Your task to perform on an android device: add a label to a message in the gmail app Image 0: 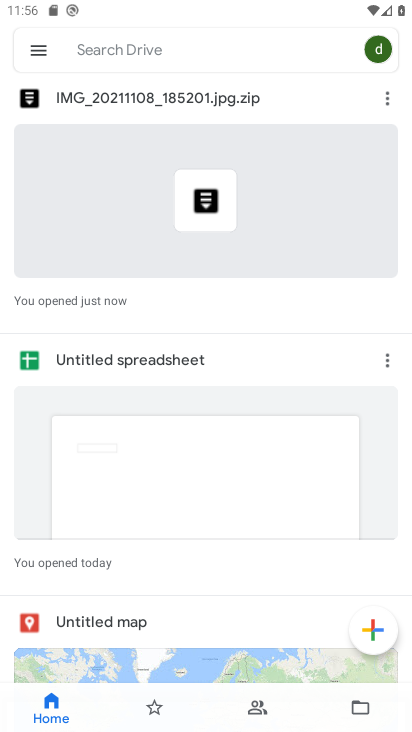
Step 0: press back button
Your task to perform on an android device: add a label to a message in the gmail app Image 1: 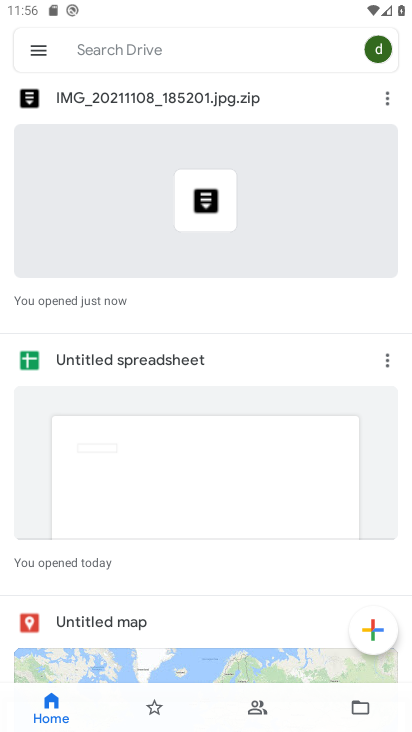
Step 1: press back button
Your task to perform on an android device: add a label to a message in the gmail app Image 2: 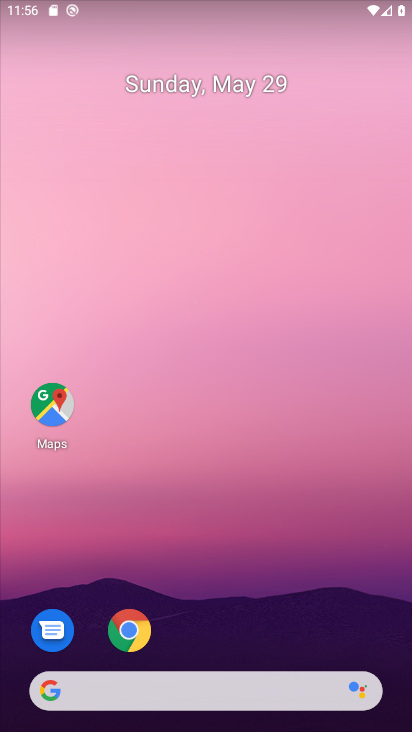
Step 2: drag from (197, 604) to (57, 15)
Your task to perform on an android device: add a label to a message in the gmail app Image 3: 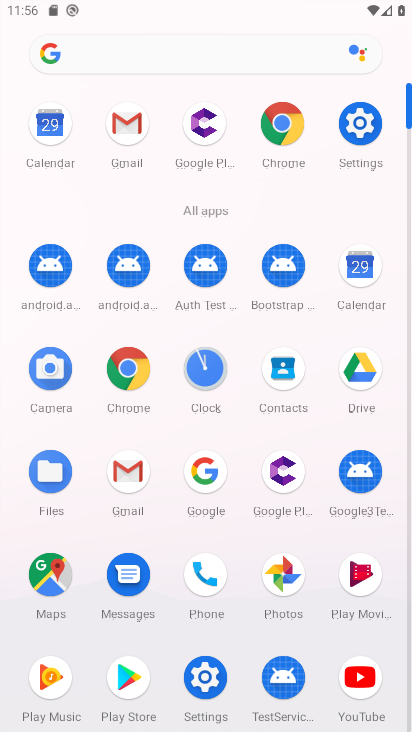
Step 3: click (121, 473)
Your task to perform on an android device: add a label to a message in the gmail app Image 4: 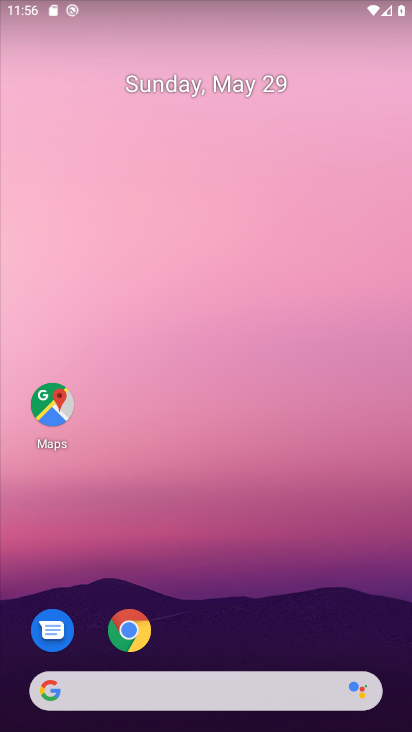
Step 4: drag from (161, 360) to (140, 58)
Your task to perform on an android device: add a label to a message in the gmail app Image 5: 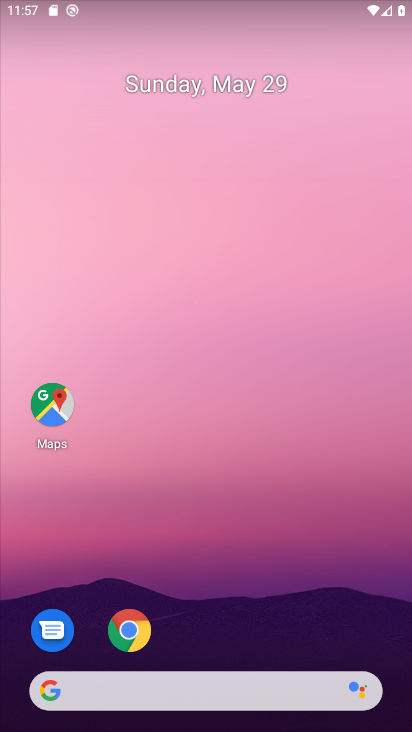
Step 5: drag from (211, 291) to (217, 45)
Your task to perform on an android device: add a label to a message in the gmail app Image 6: 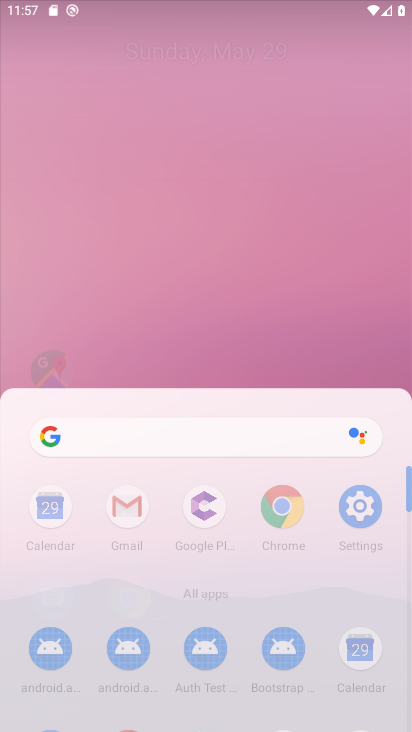
Step 6: drag from (226, 347) to (199, 104)
Your task to perform on an android device: add a label to a message in the gmail app Image 7: 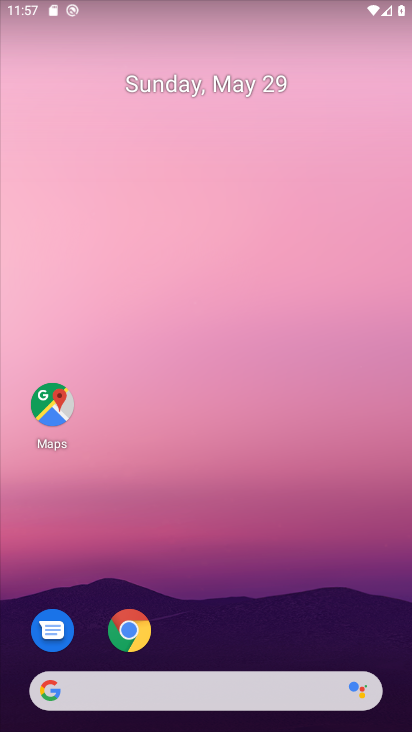
Step 7: drag from (212, 649) to (118, 79)
Your task to perform on an android device: add a label to a message in the gmail app Image 8: 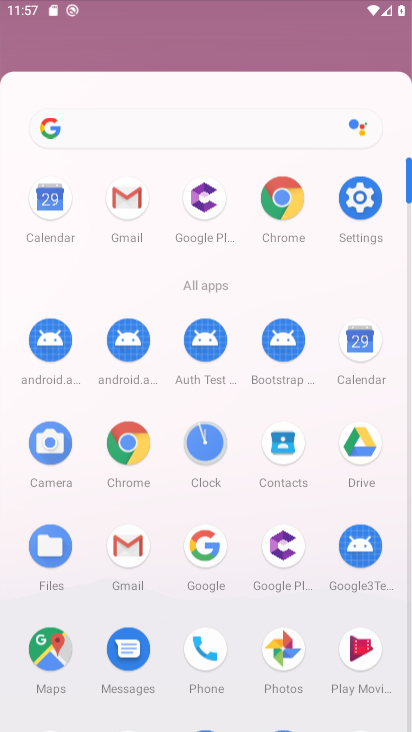
Step 8: drag from (209, 533) to (147, 4)
Your task to perform on an android device: add a label to a message in the gmail app Image 9: 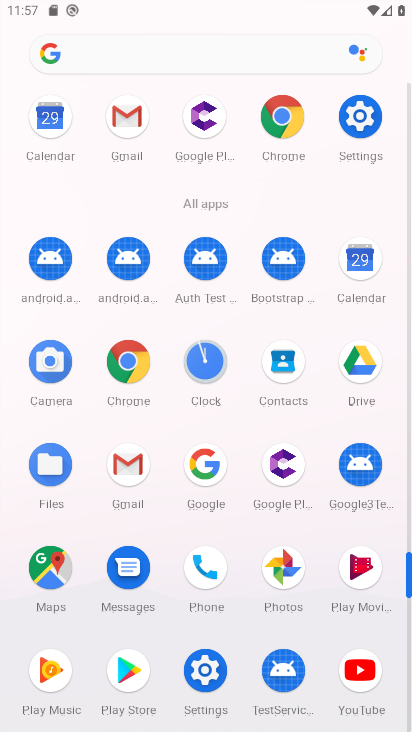
Step 9: click (124, 464)
Your task to perform on an android device: add a label to a message in the gmail app Image 10: 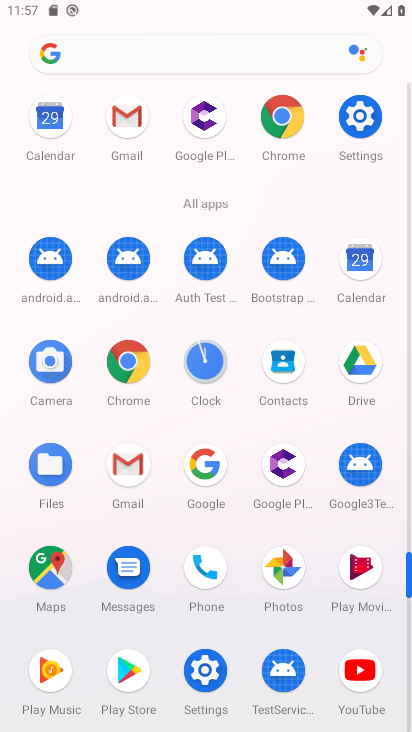
Step 10: click (124, 464)
Your task to perform on an android device: add a label to a message in the gmail app Image 11: 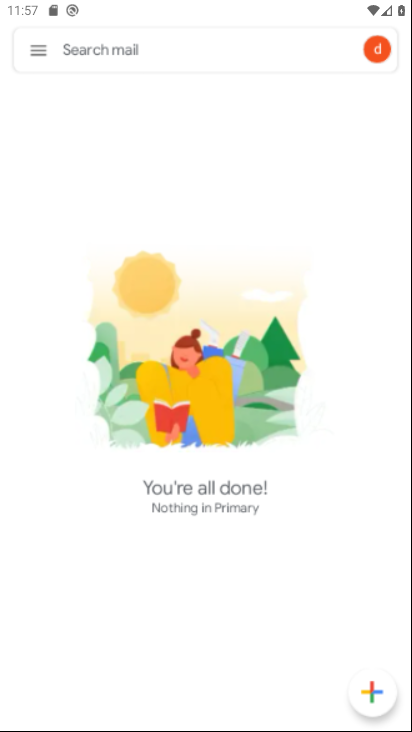
Step 11: click (124, 464)
Your task to perform on an android device: add a label to a message in the gmail app Image 12: 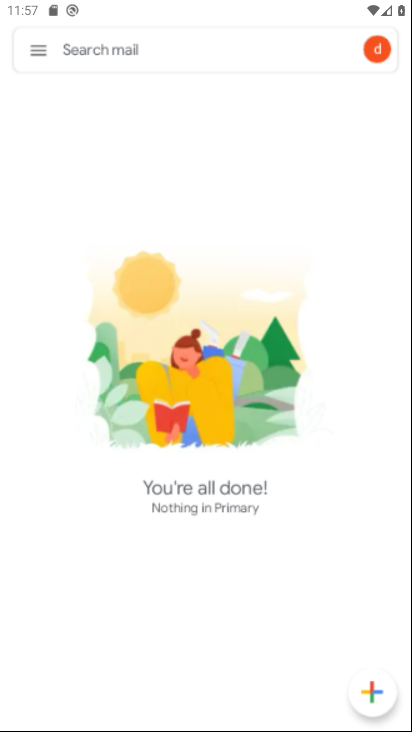
Step 12: click (124, 464)
Your task to perform on an android device: add a label to a message in the gmail app Image 13: 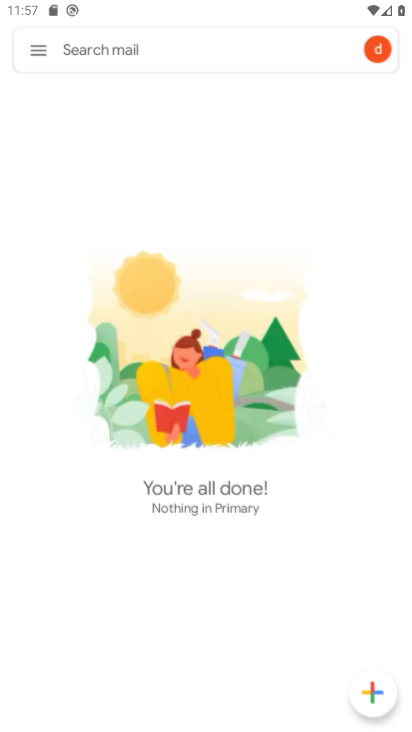
Step 13: click (124, 464)
Your task to perform on an android device: add a label to a message in the gmail app Image 14: 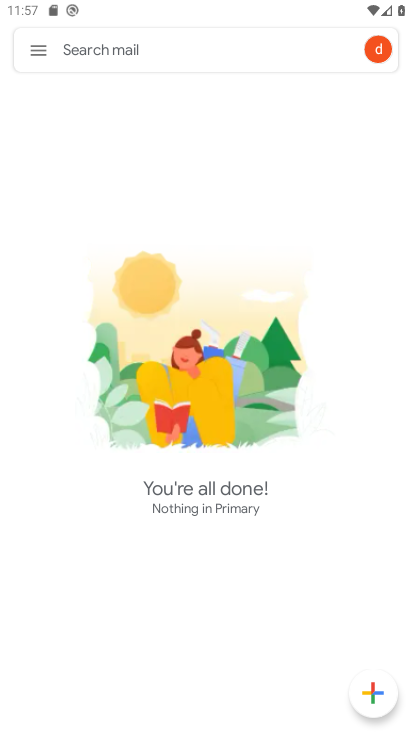
Step 14: click (37, 50)
Your task to perform on an android device: add a label to a message in the gmail app Image 15: 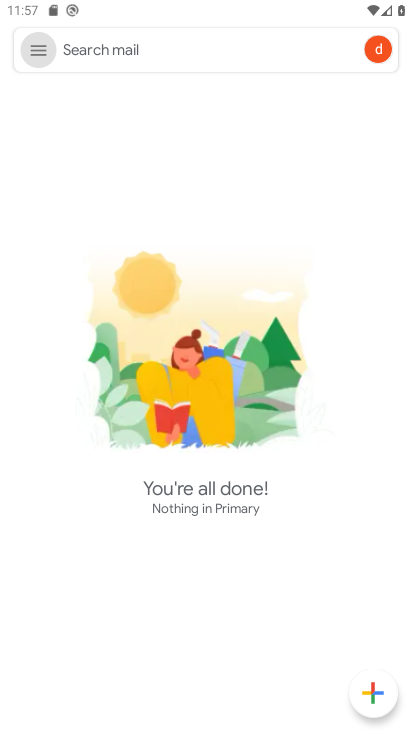
Step 15: click (37, 50)
Your task to perform on an android device: add a label to a message in the gmail app Image 16: 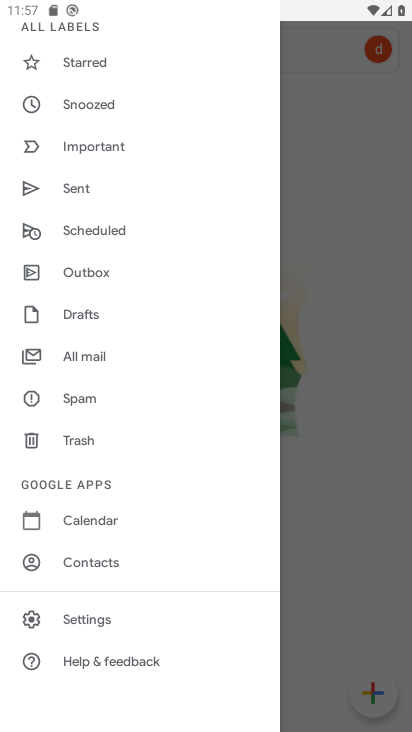
Step 16: click (79, 358)
Your task to perform on an android device: add a label to a message in the gmail app Image 17: 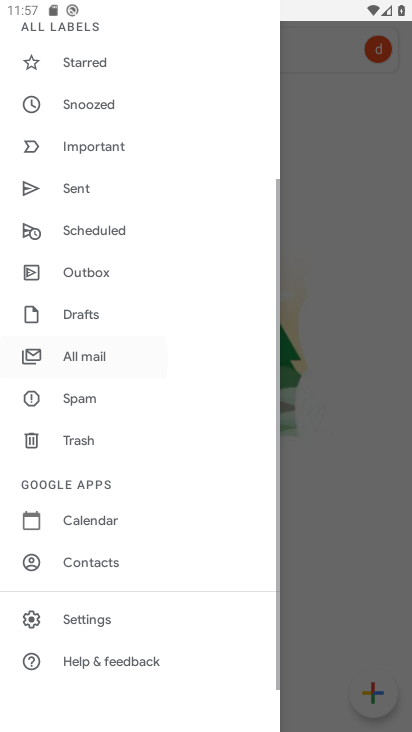
Step 17: click (79, 358)
Your task to perform on an android device: add a label to a message in the gmail app Image 18: 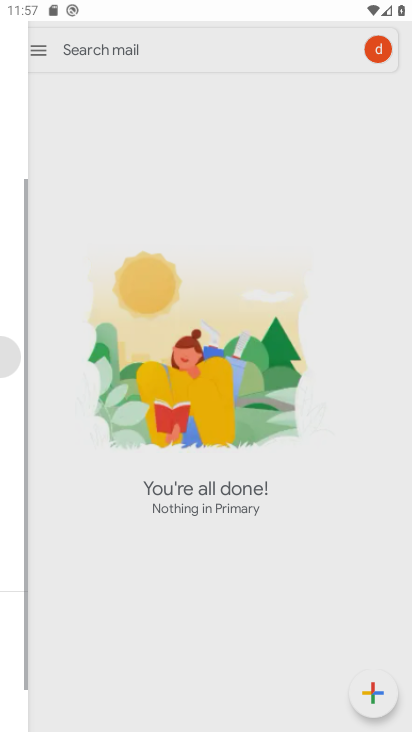
Step 18: click (79, 358)
Your task to perform on an android device: add a label to a message in the gmail app Image 19: 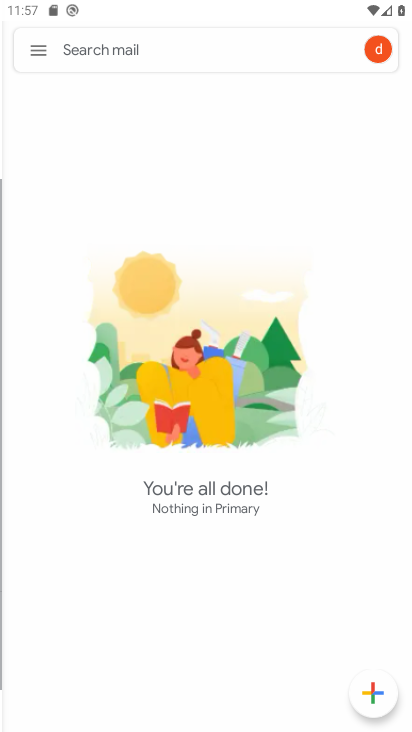
Step 19: click (79, 358)
Your task to perform on an android device: add a label to a message in the gmail app Image 20: 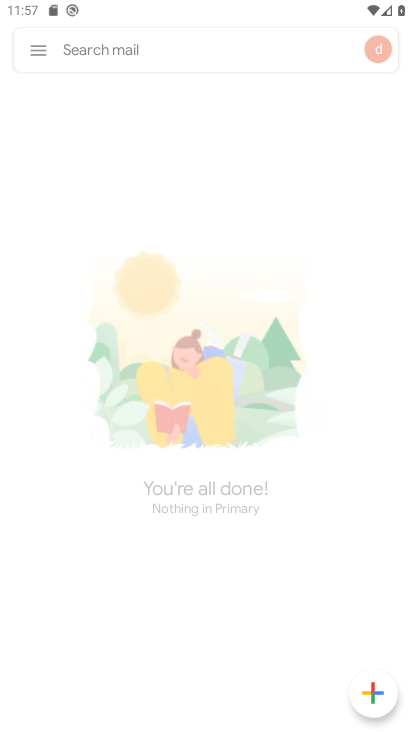
Step 20: click (79, 358)
Your task to perform on an android device: add a label to a message in the gmail app Image 21: 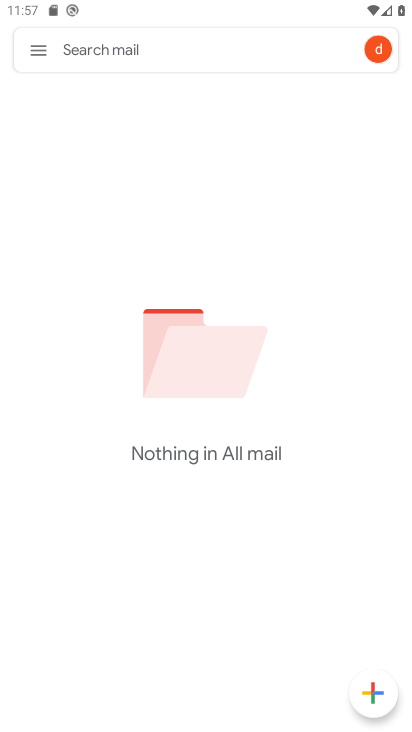
Step 21: task complete